Your task to perform on an android device: Go to location settings Image 0: 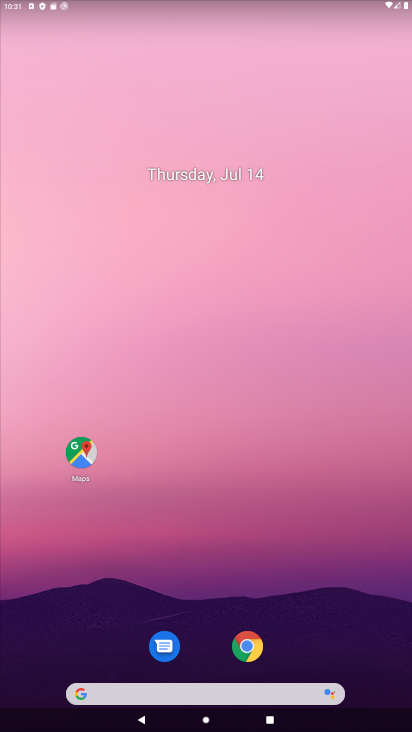
Step 0: drag from (200, 626) to (206, 151)
Your task to perform on an android device: Go to location settings Image 1: 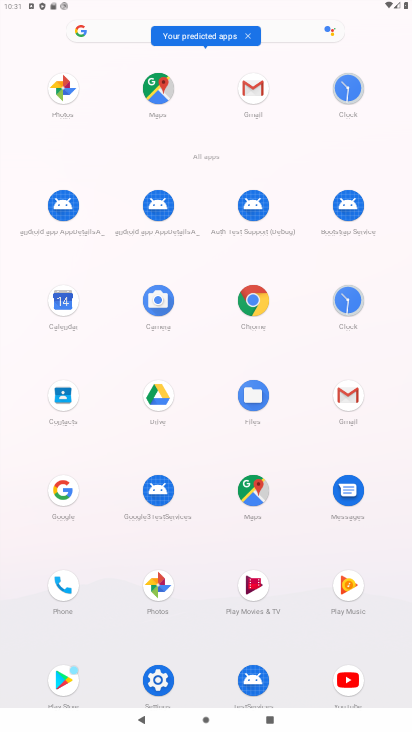
Step 1: click (150, 684)
Your task to perform on an android device: Go to location settings Image 2: 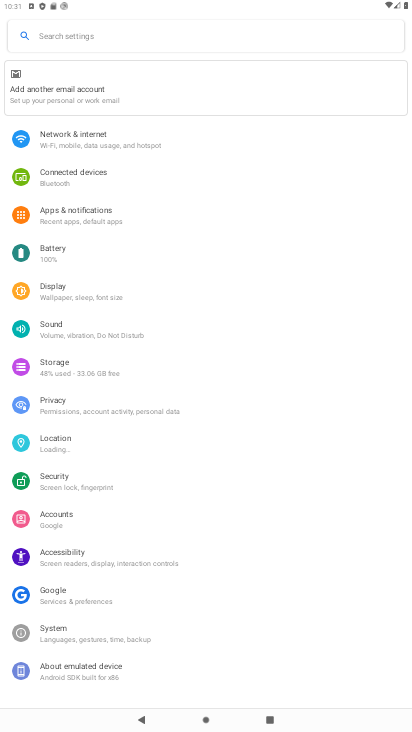
Step 2: click (101, 437)
Your task to perform on an android device: Go to location settings Image 3: 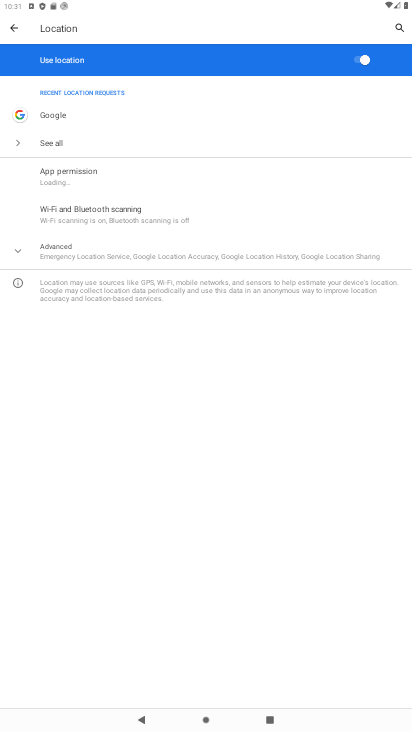
Step 3: task complete